Your task to perform on an android device: all mails in gmail Image 0: 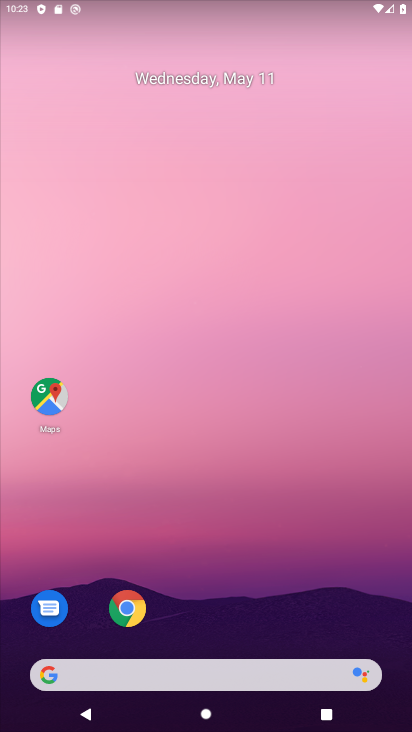
Step 0: drag from (288, 580) to (311, 99)
Your task to perform on an android device: all mails in gmail Image 1: 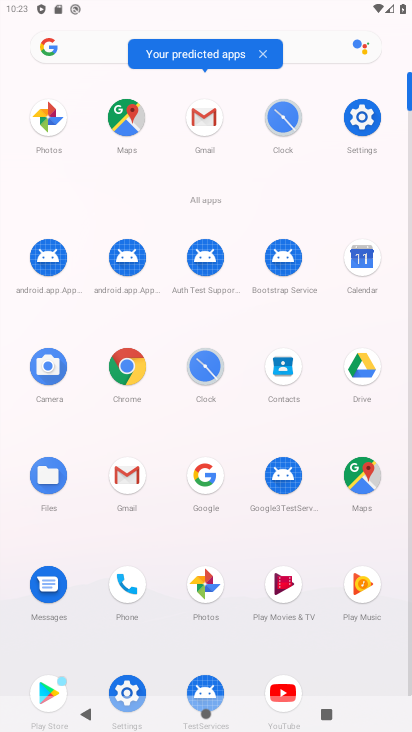
Step 1: click (136, 466)
Your task to perform on an android device: all mails in gmail Image 2: 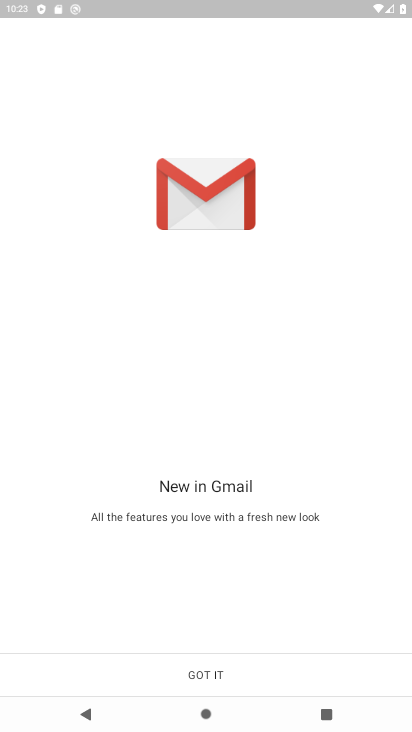
Step 2: click (215, 666)
Your task to perform on an android device: all mails in gmail Image 3: 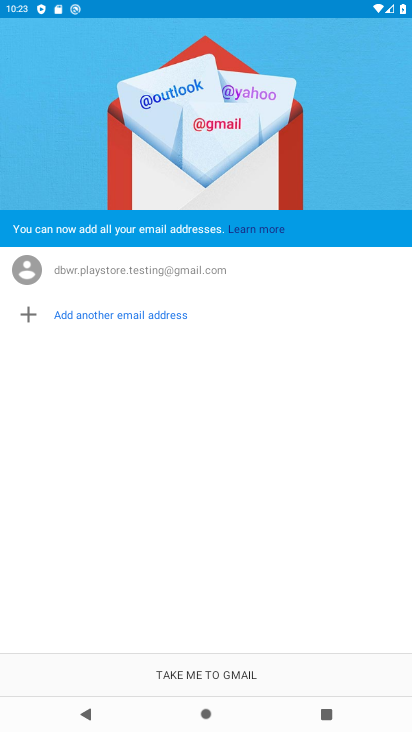
Step 3: click (242, 666)
Your task to perform on an android device: all mails in gmail Image 4: 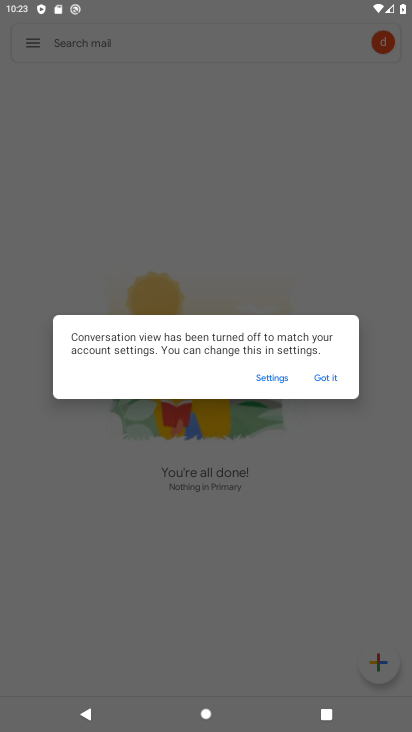
Step 4: click (324, 372)
Your task to perform on an android device: all mails in gmail Image 5: 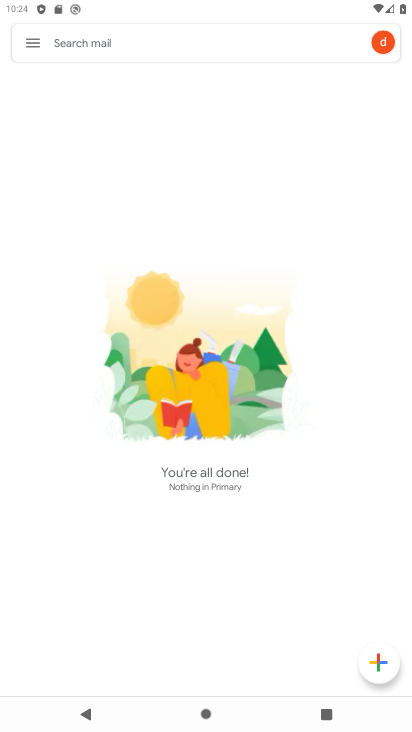
Step 5: click (29, 41)
Your task to perform on an android device: all mails in gmail Image 6: 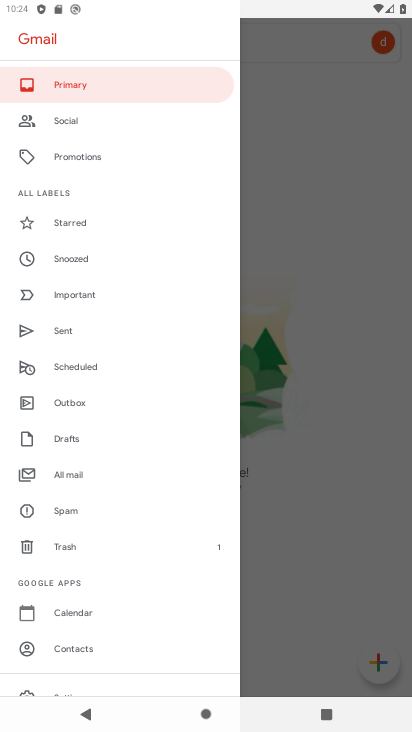
Step 6: drag from (104, 566) to (116, 353)
Your task to perform on an android device: all mails in gmail Image 7: 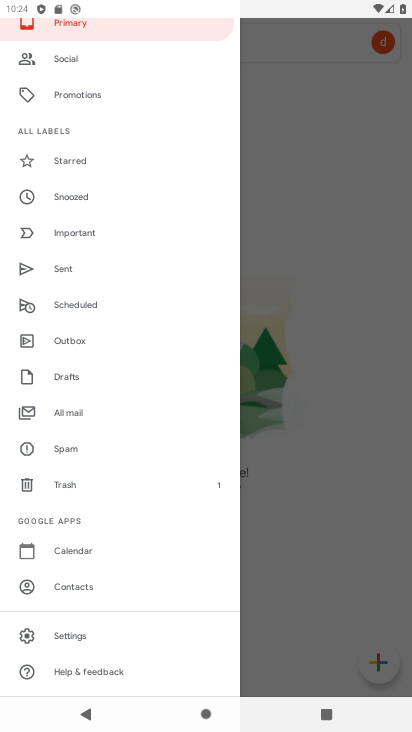
Step 7: click (66, 414)
Your task to perform on an android device: all mails in gmail Image 8: 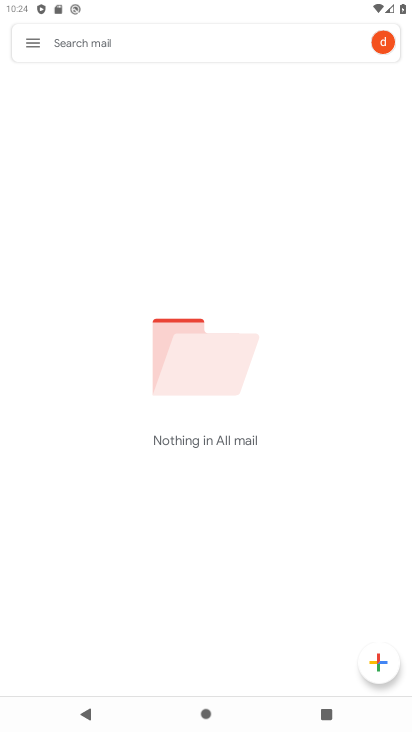
Step 8: task complete